Your task to perform on an android device: turn off airplane mode Image 0: 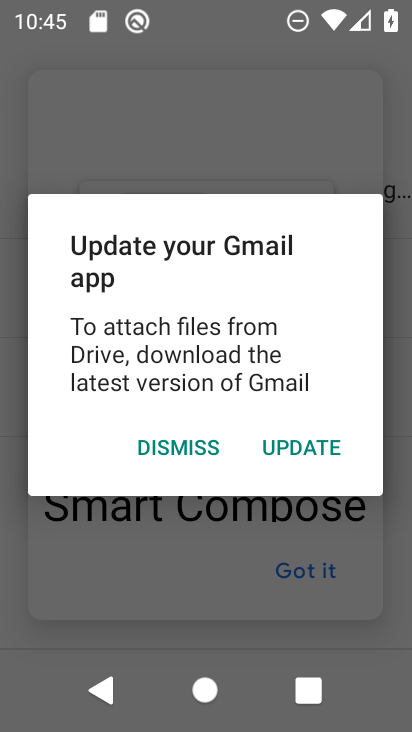
Step 0: press home button
Your task to perform on an android device: turn off airplane mode Image 1: 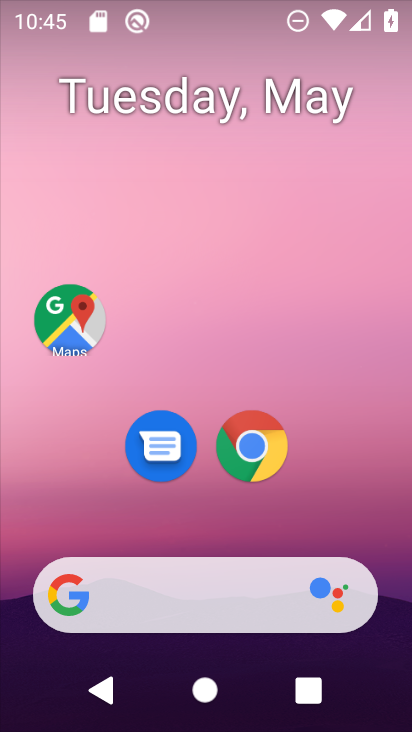
Step 1: drag from (214, 520) to (245, 17)
Your task to perform on an android device: turn off airplane mode Image 2: 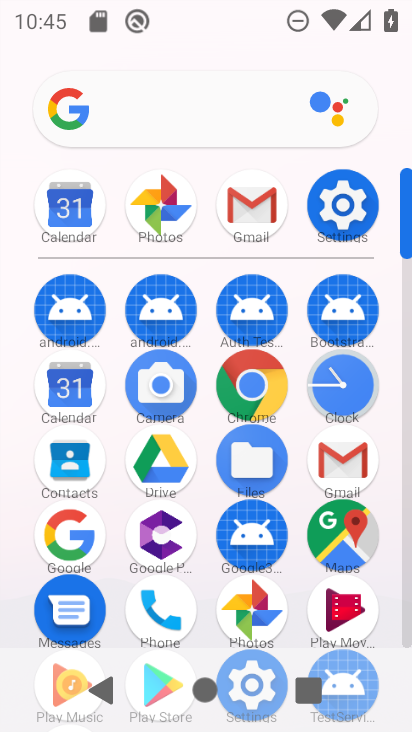
Step 2: click (355, 194)
Your task to perform on an android device: turn off airplane mode Image 3: 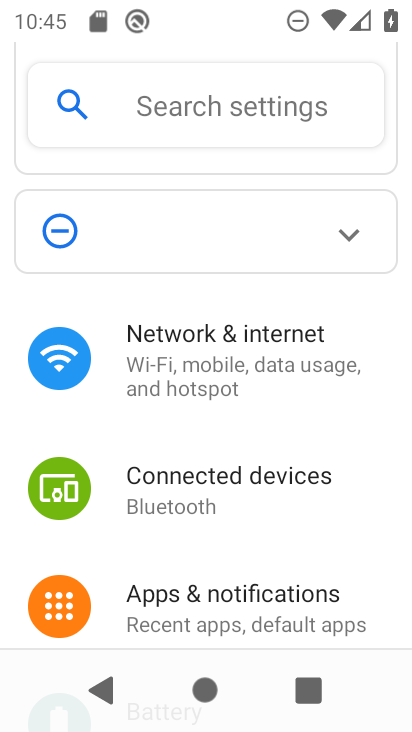
Step 3: click (238, 367)
Your task to perform on an android device: turn off airplane mode Image 4: 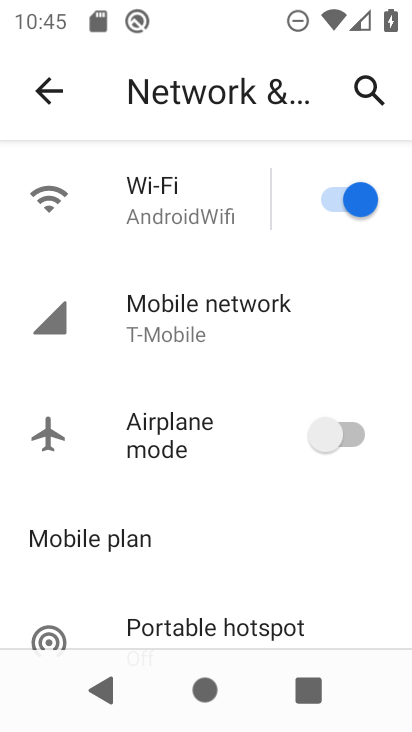
Step 4: task complete